Your task to perform on an android device: open app "Lyft - Rideshare, Bikes, Scooters & Transit" Image 0: 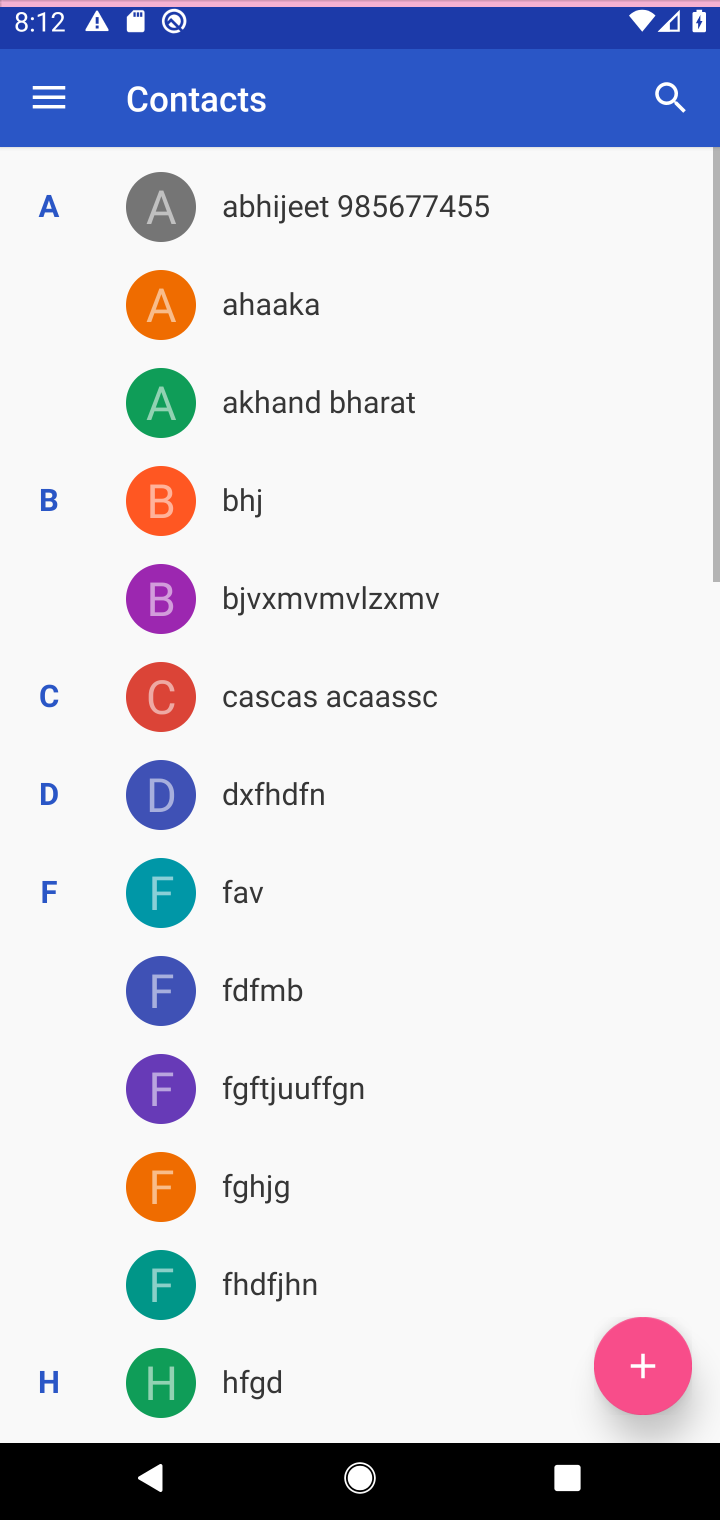
Step 0: press back button
Your task to perform on an android device: open app "Lyft - Rideshare, Bikes, Scooters & Transit" Image 1: 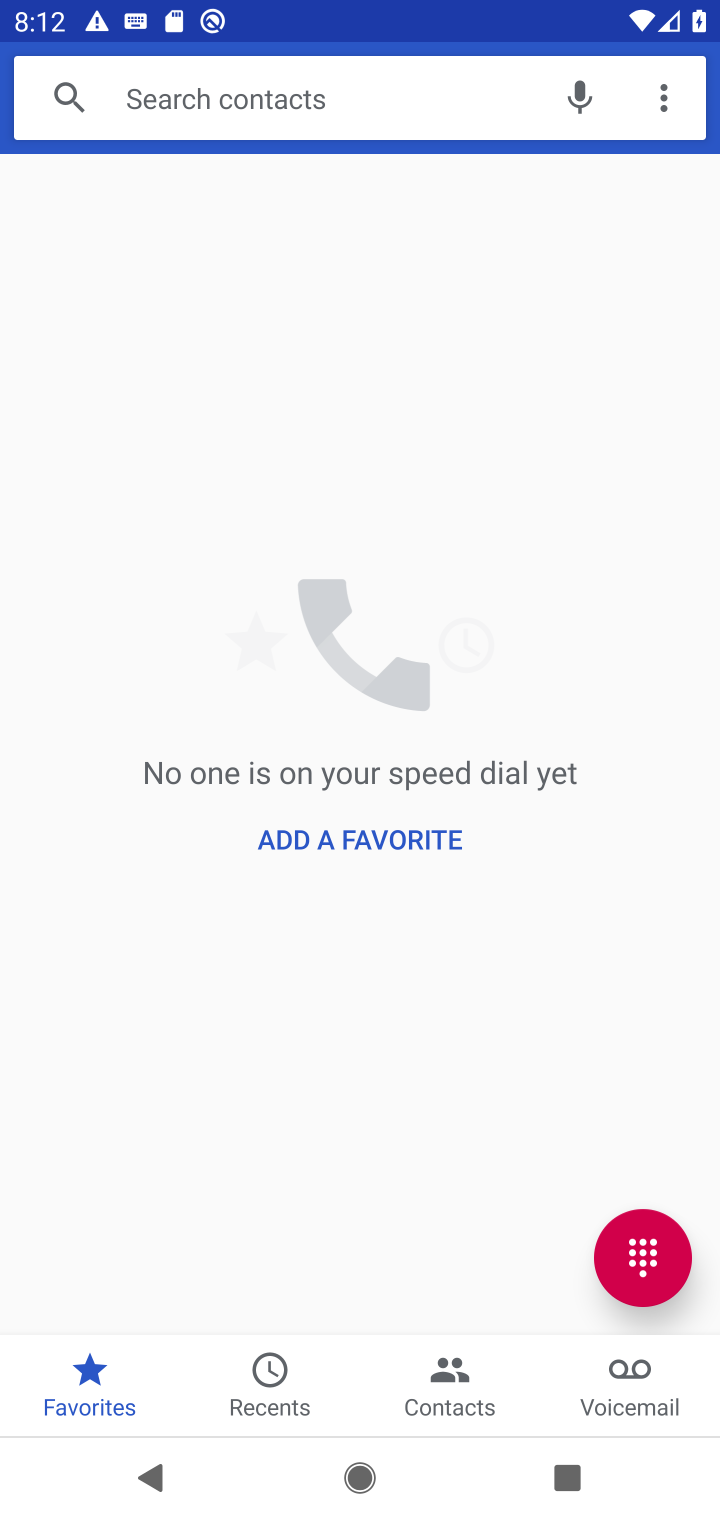
Step 1: press home button
Your task to perform on an android device: open app "Lyft - Rideshare, Bikes, Scooters & Transit" Image 2: 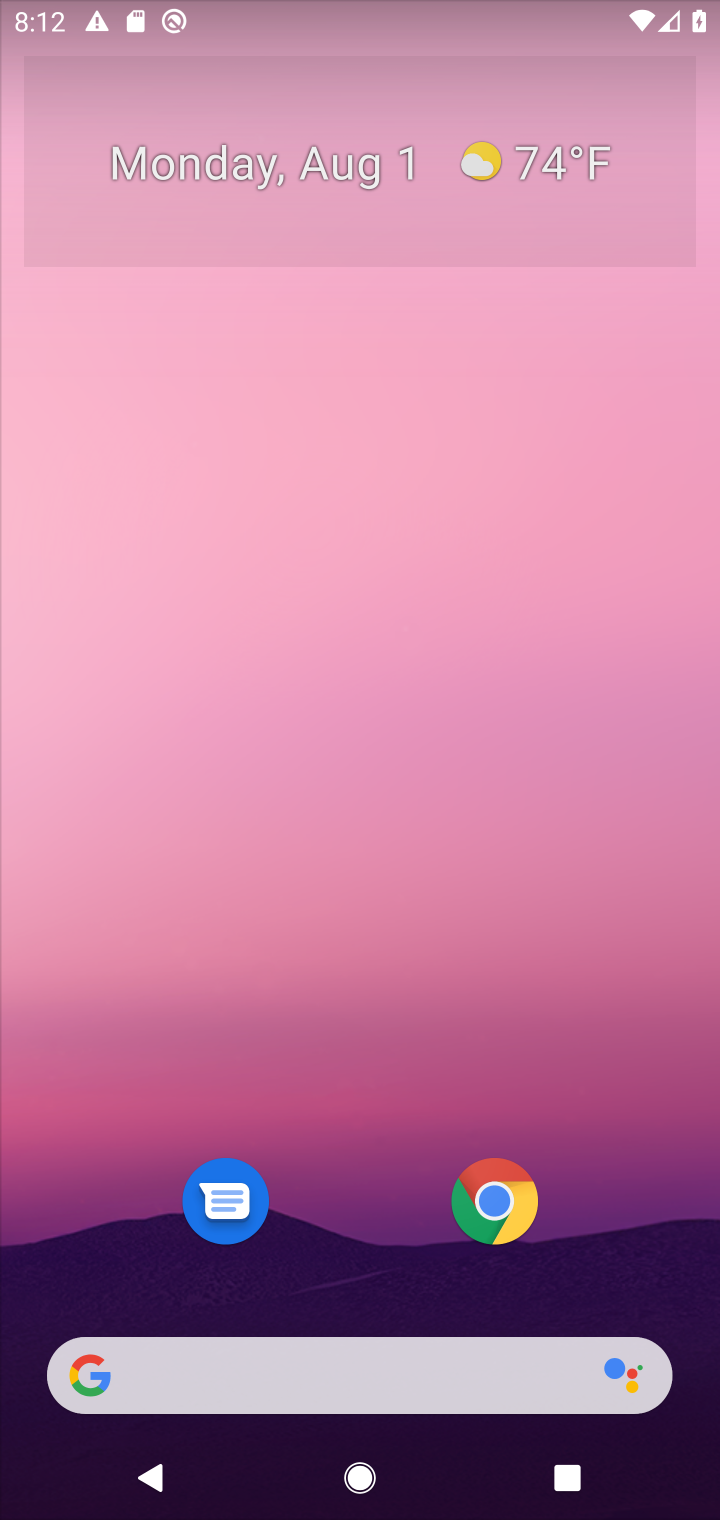
Step 2: drag from (662, 734) to (666, 86)
Your task to perform on an android device: open app "Lyft - Rideshare, Bikes, Scooters & Transit" Image 3: 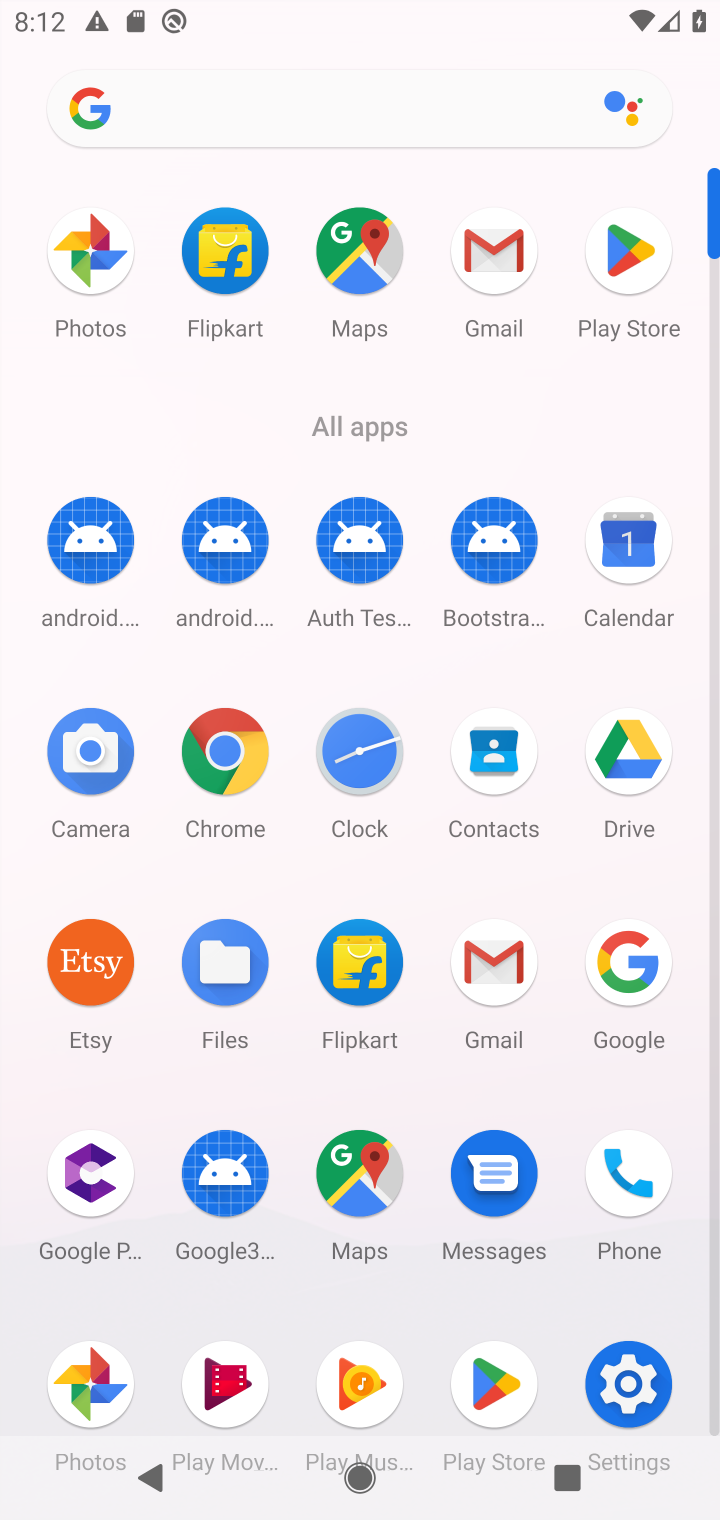
Step 3: click (620, 261)
Your task to perform on an android device: open app "Lyft - Rideshare, Bikes, Scooters & Transit" Image 4: 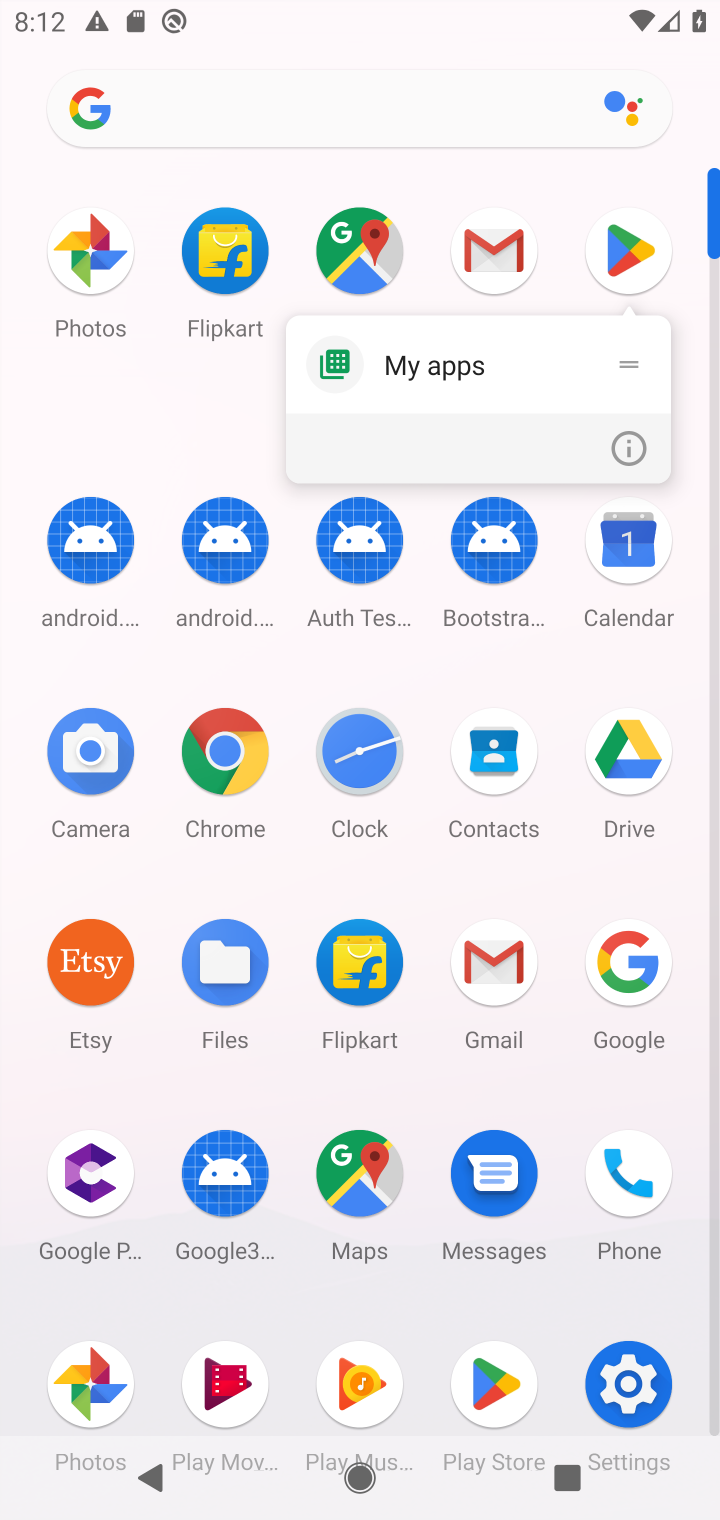
Step 4: click (642, 262)
Your task to perform on an android device: open app "Lyft - Rideshare, Bikes, Scooters & Transit" Image 5: 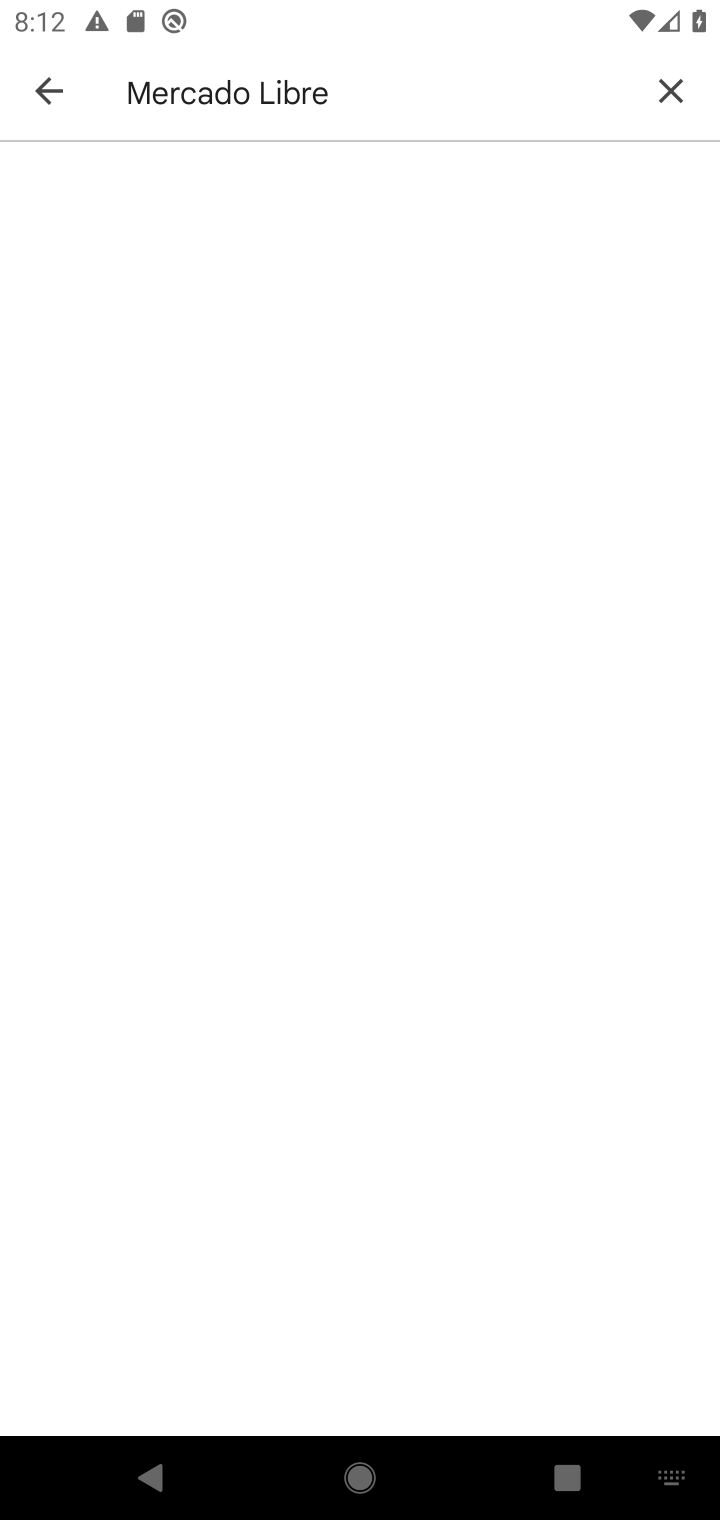
Step 5: press back button
Your task to perform on an android device: open app "Lyft - Rideshare, Bikes, Scooters & Transit" Image 6: 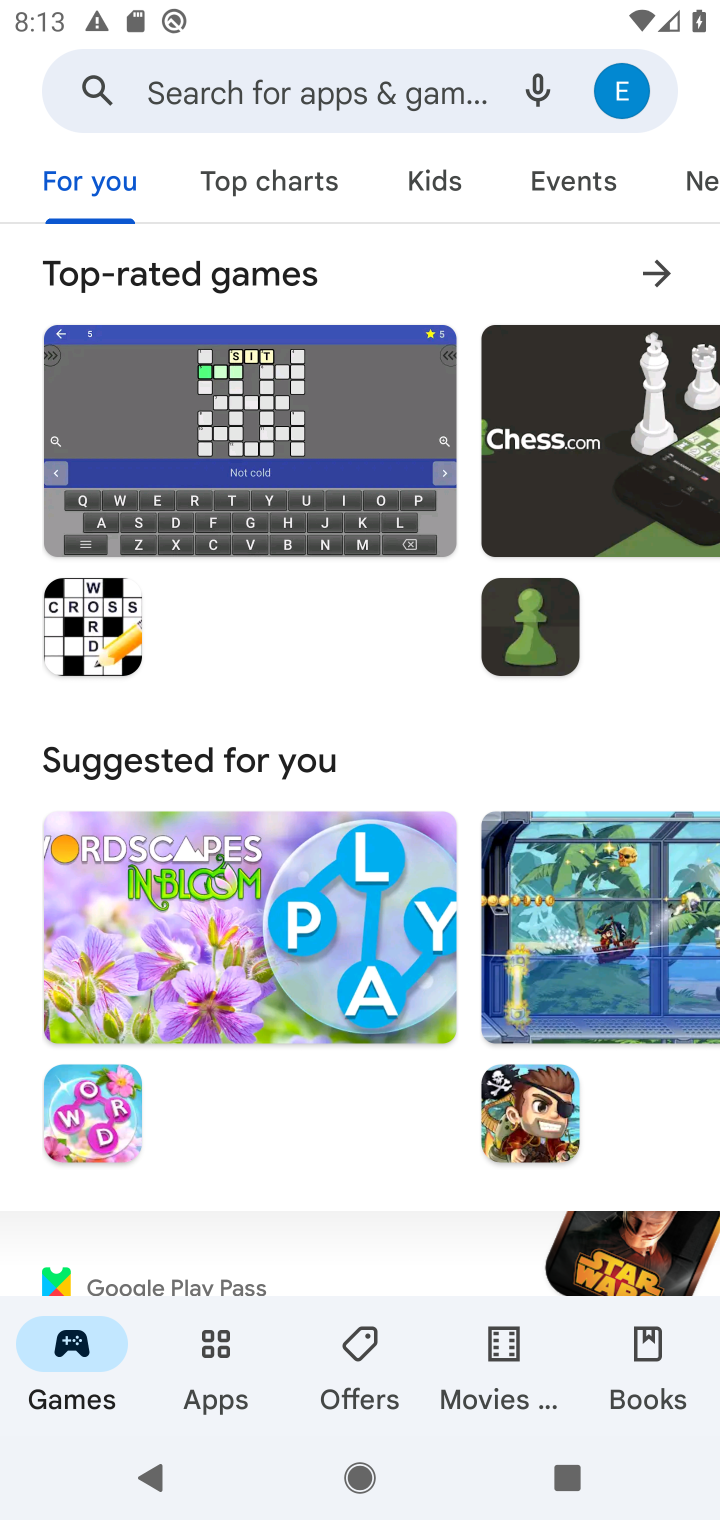
Step 6: click (242, 85)
Your task to perform on an android device: open app "Lyft - Rideshare, Bikes, Scooters & Transit" Image 7: 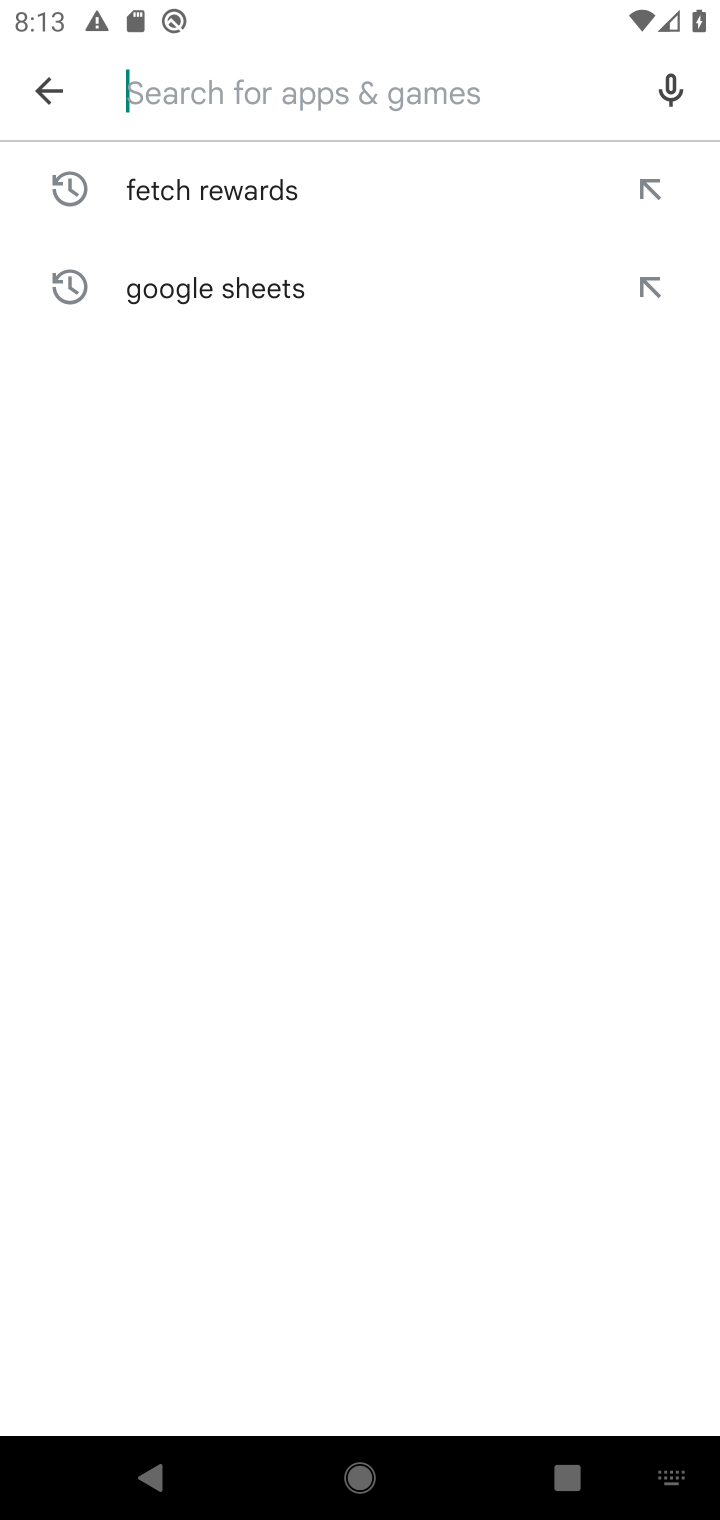
Step 7: type "Lyft - Rideshare, Bikes, Scooters & Transit"
Your task to perform on an android device: open app "Lyft - Rideshare, Bikes, Scooters & Transit" Image 8: 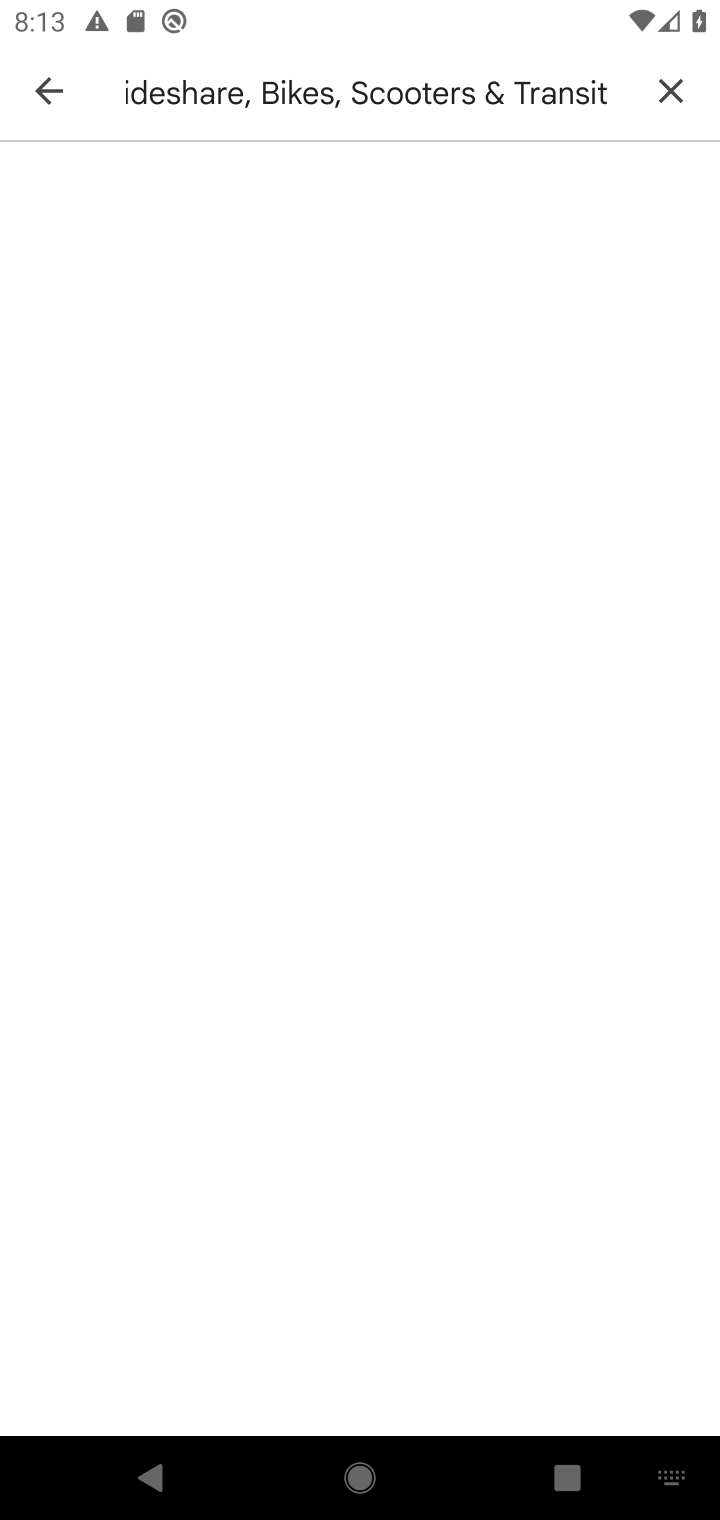
Step 8: task complete